Your task to perform on an android device: change the clock style Image 0: 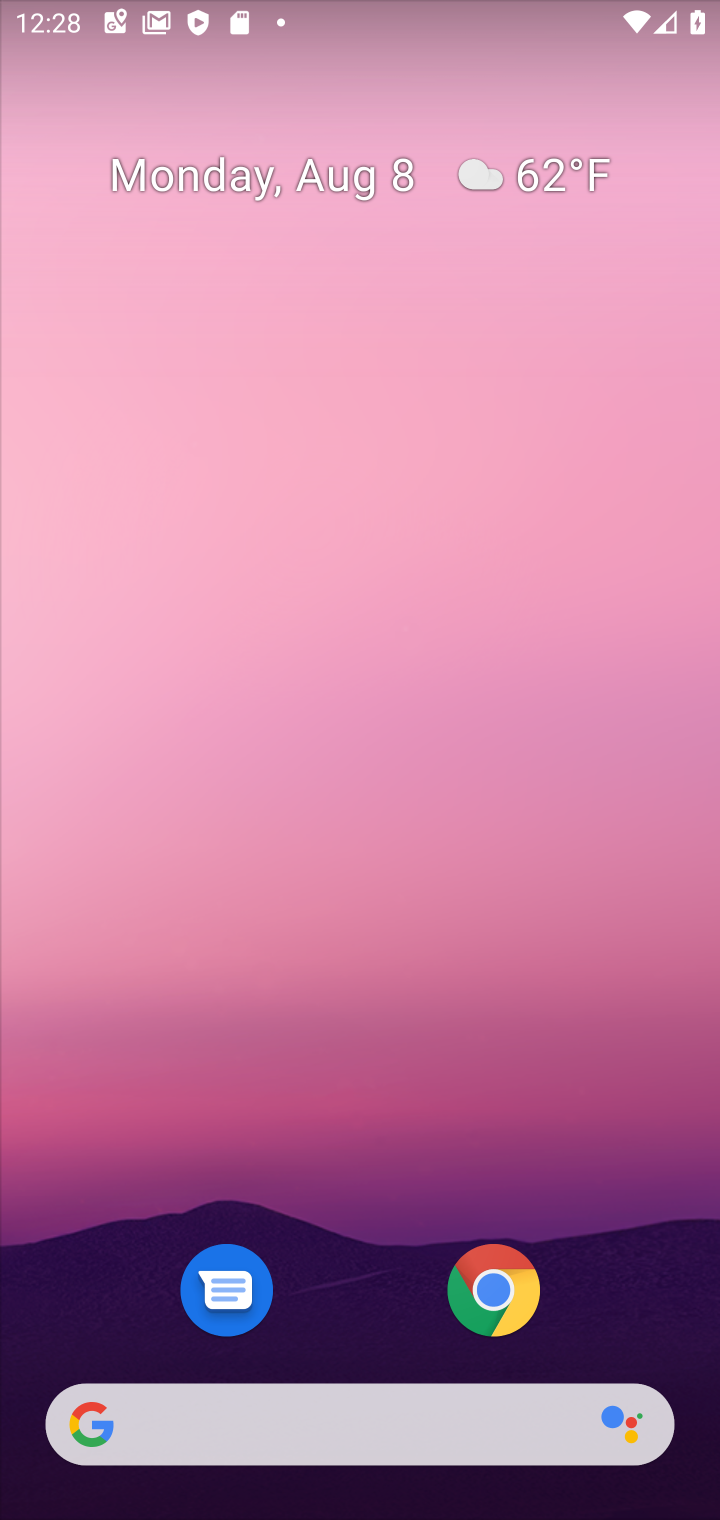
Step 0: click (428, 646)
Your task to perform on an android device: change the clock style Image 1: 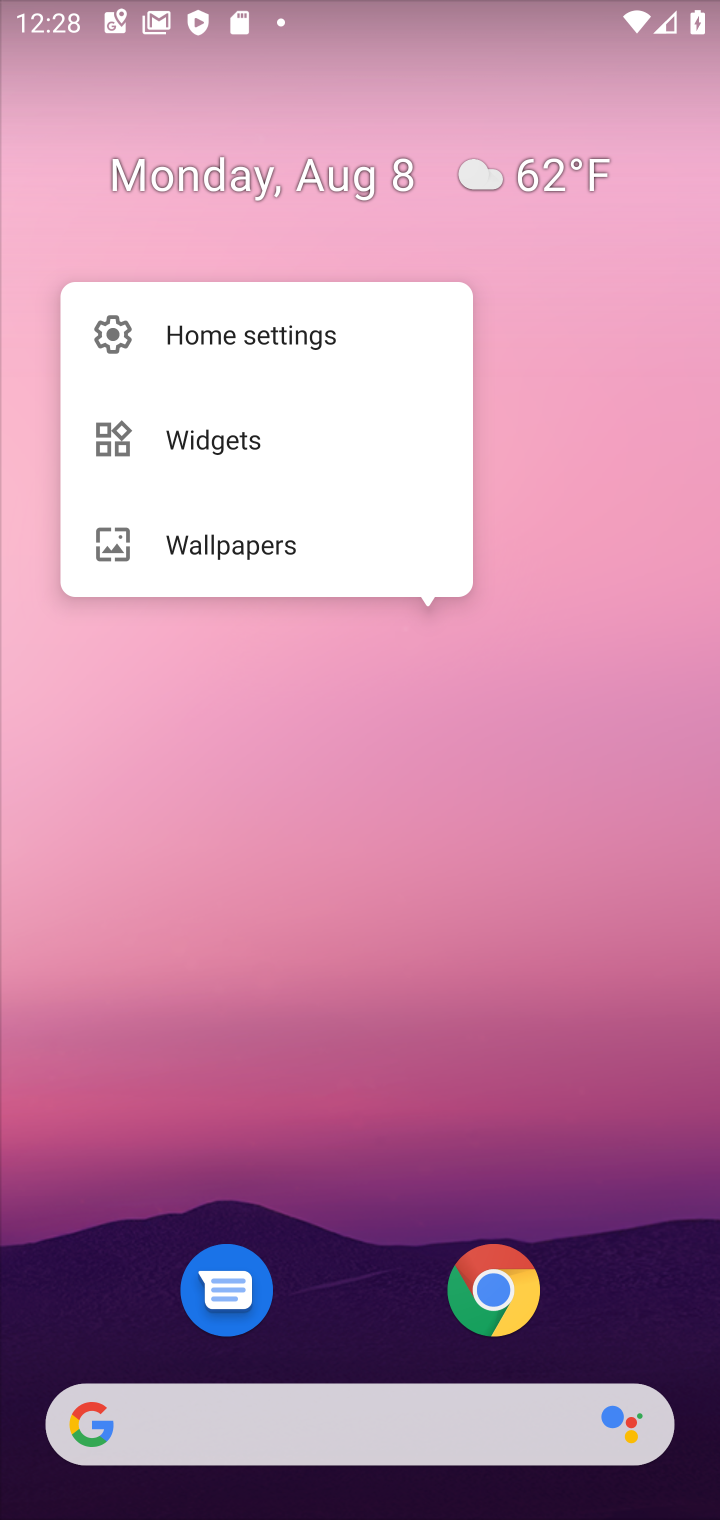
Step 1: click (428, 633)
Your task to perform on an android device: change the clock style Image 2: 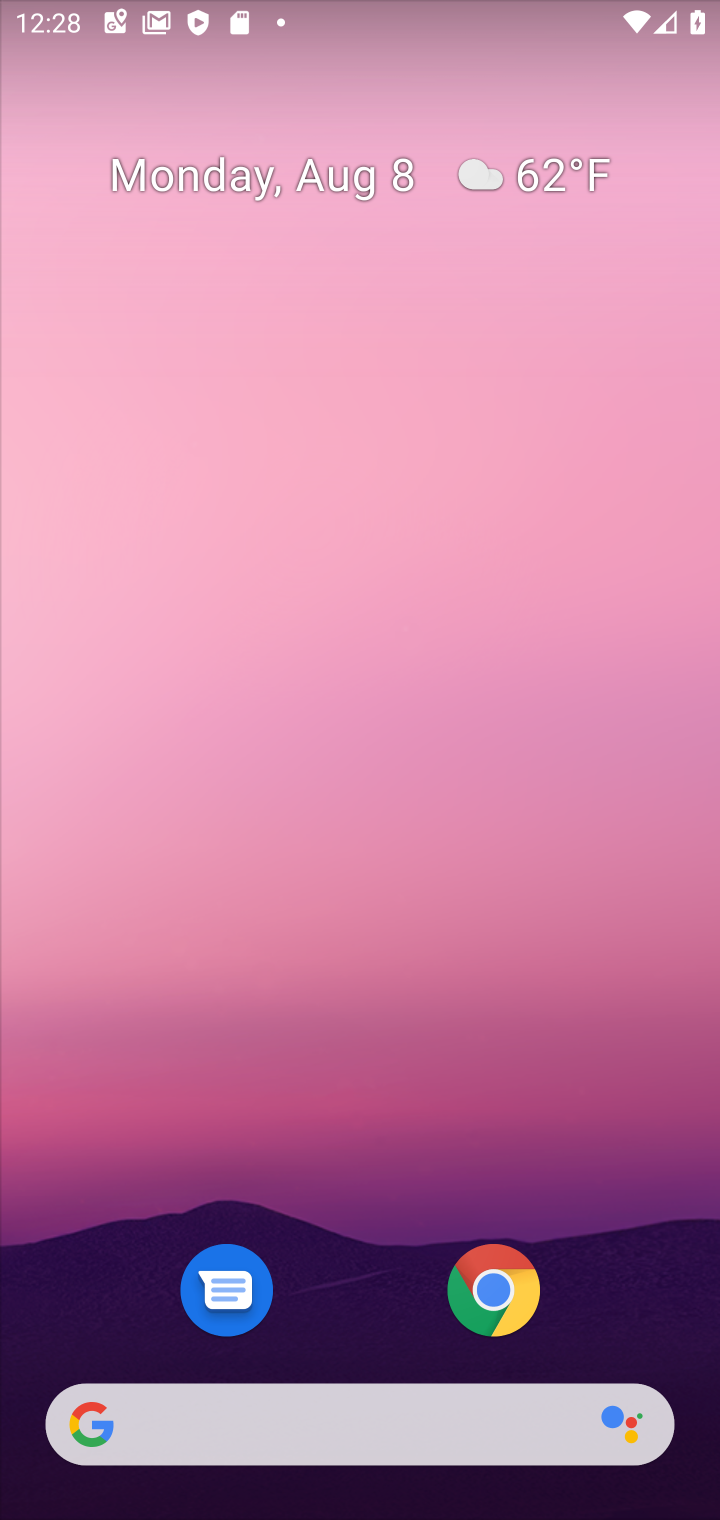
Step 2: drag from (313, 160) to (467, 77)
Your task to perform on an android device: change the clock style Image 3: 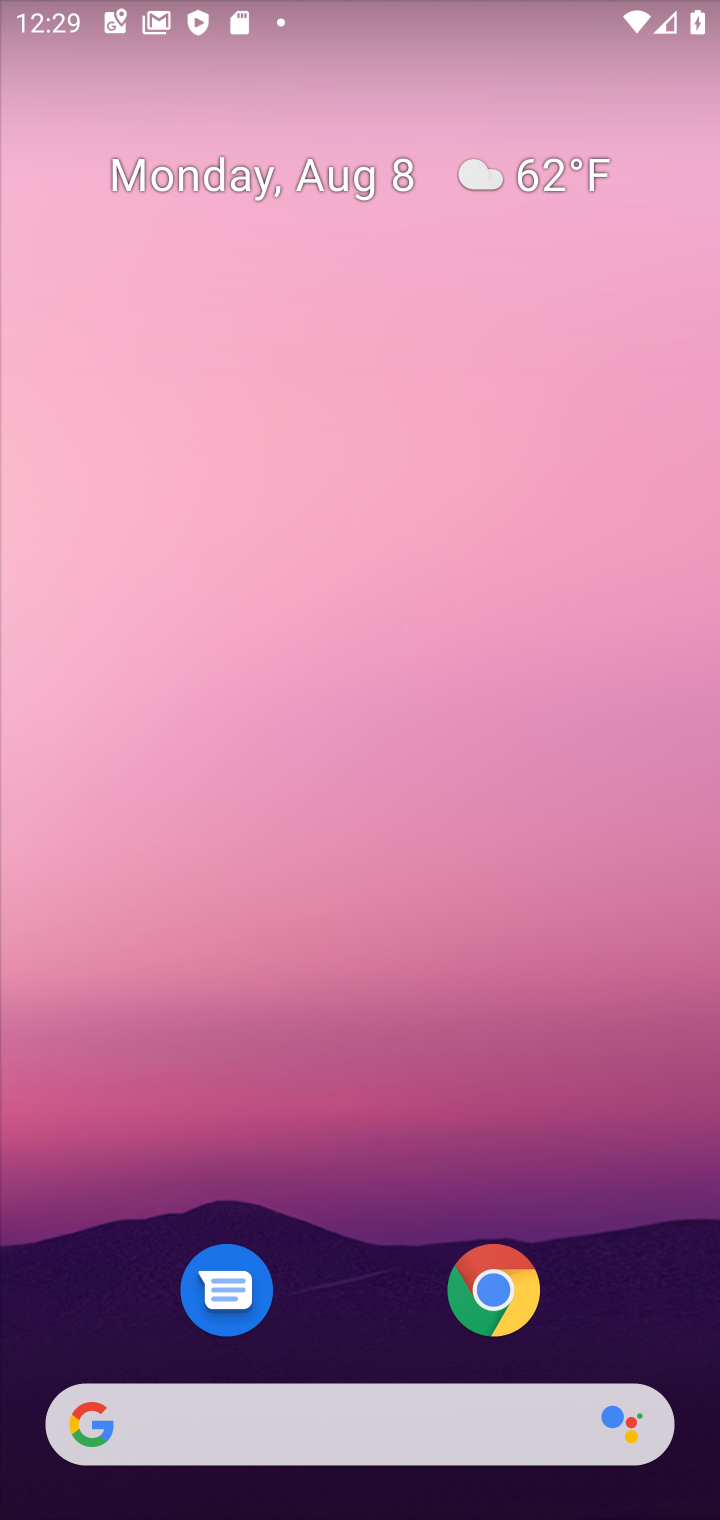
Step 3: drag from (393, 1315) to (393, 306)
Your task to perform on an android device: change the clock style Image 4: 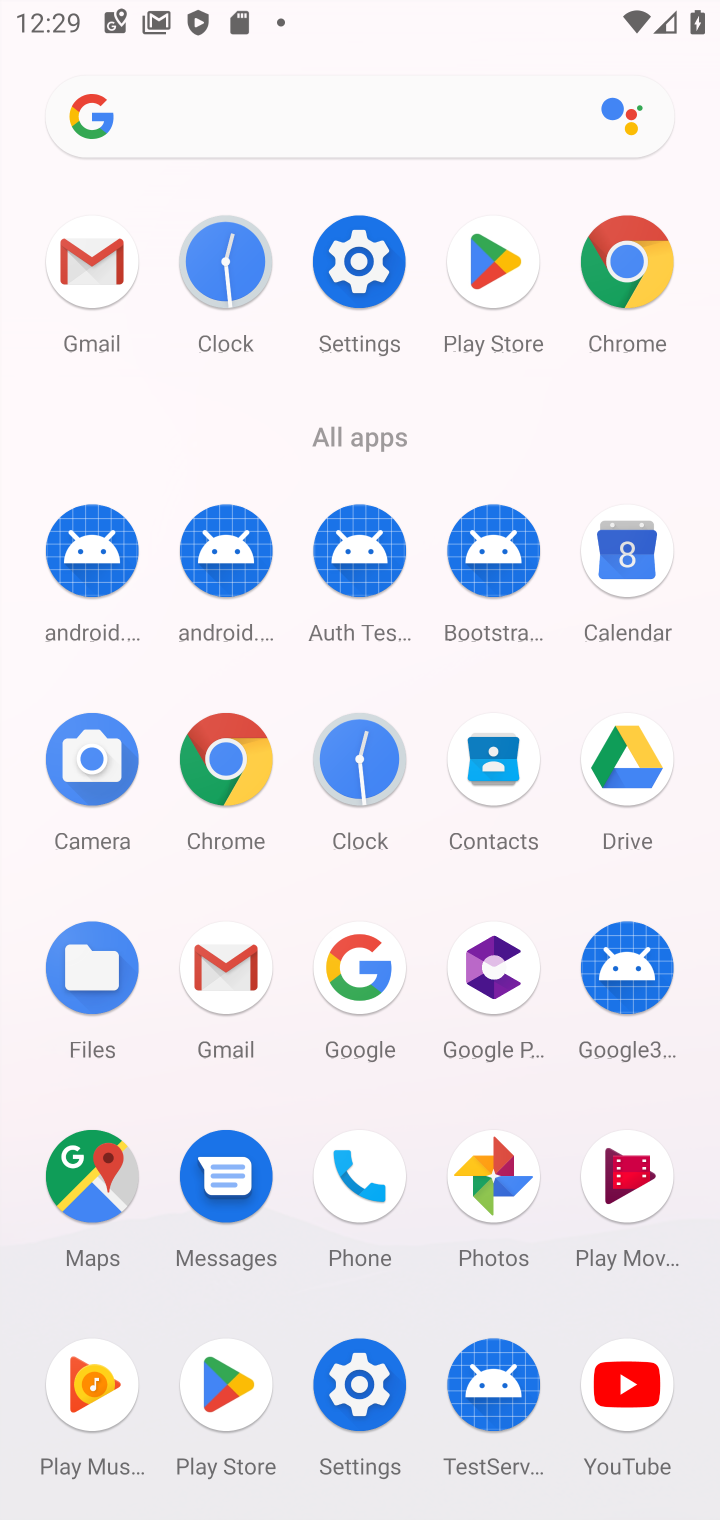
Step 4: click (362, 760)
Your task to perform on an android device: change the clock style Image 5: 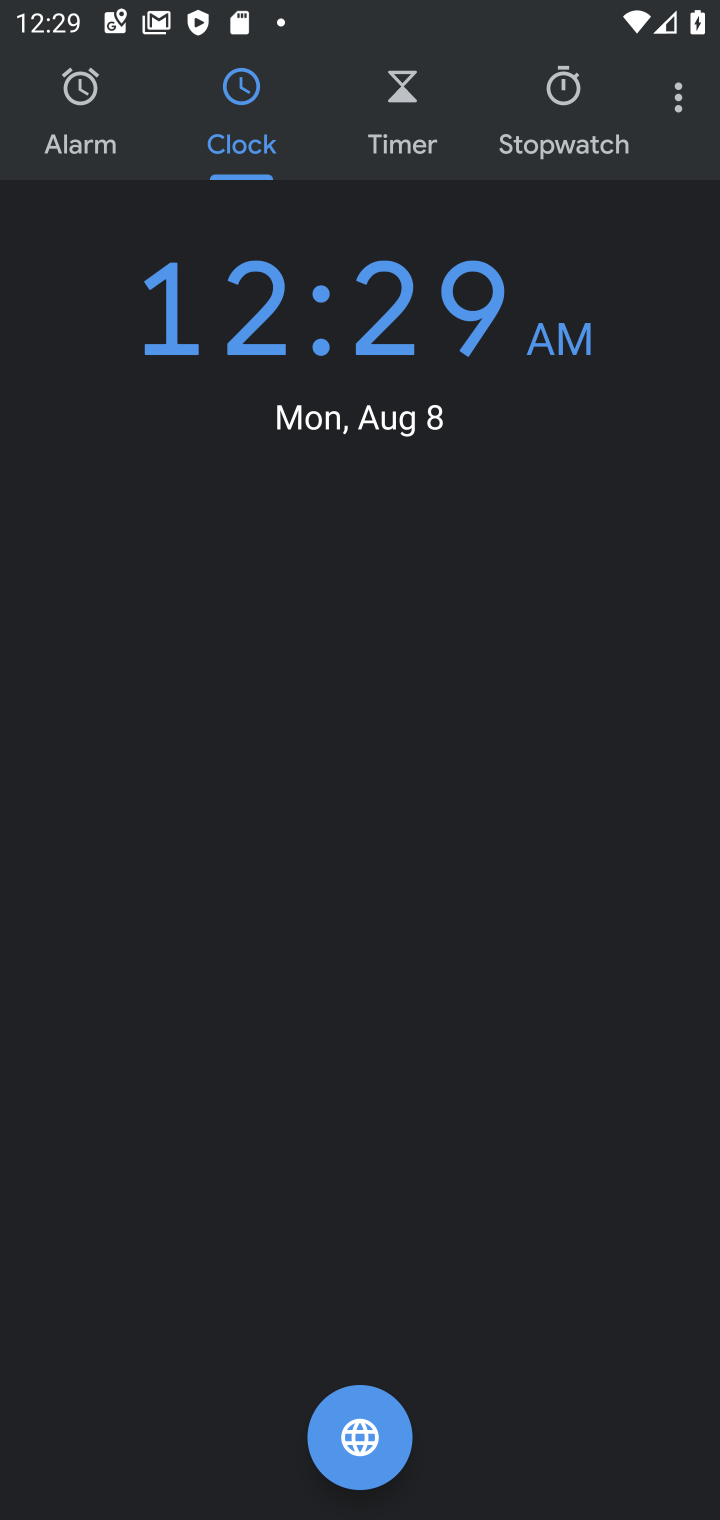
Step 5: click (676, 133)
Your task to perform on an android device: change the clock style Image 6: 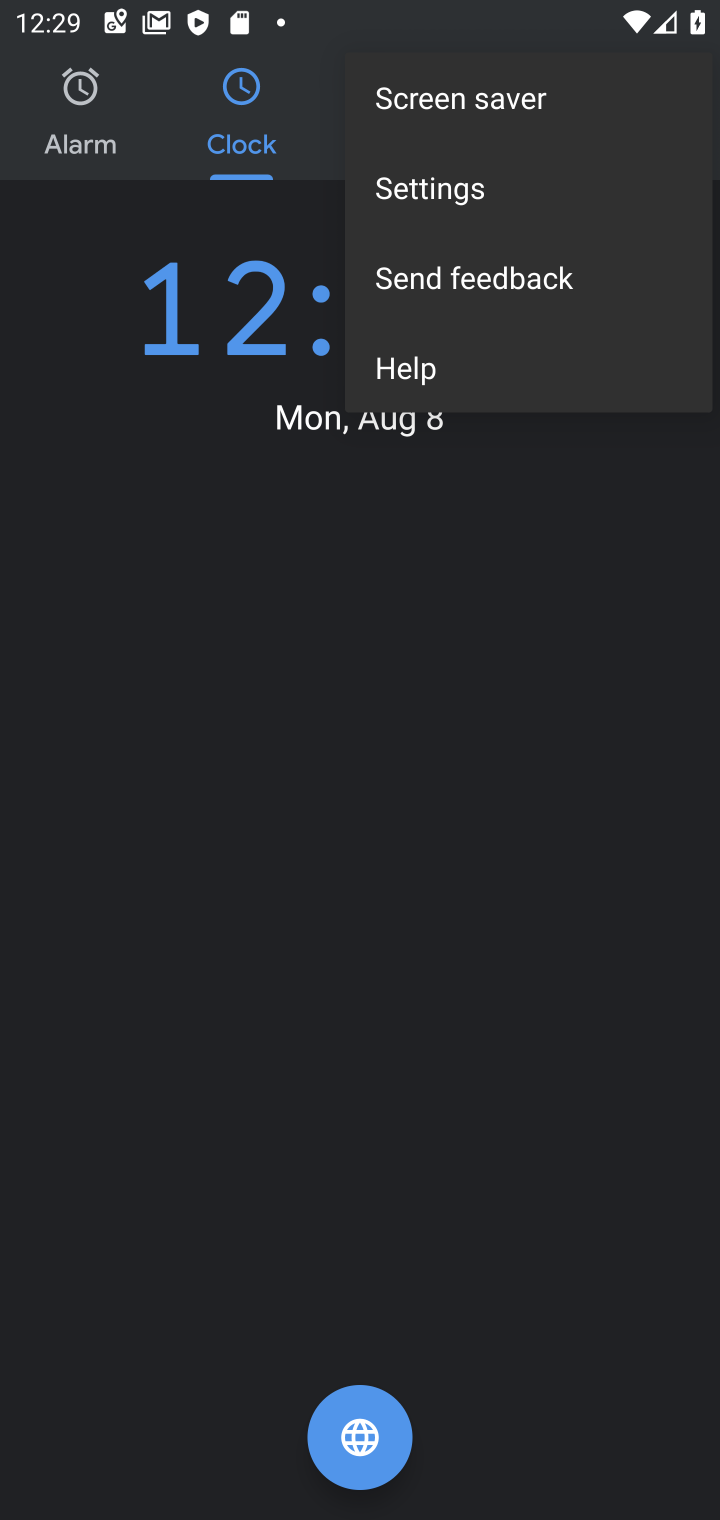
Step 6: click (478, 214)
Your task to perform on an android device: change the clock style Image 7: 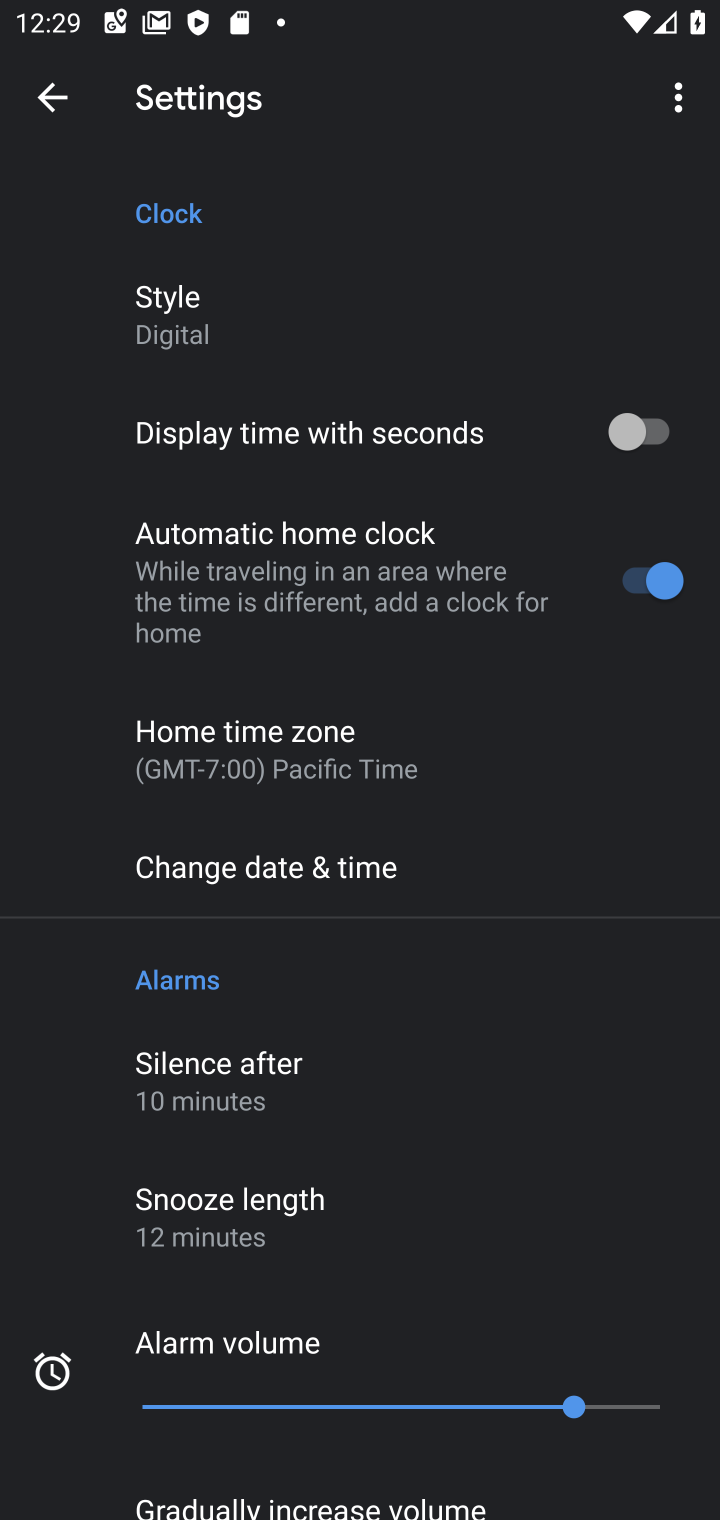
Step 7: click (204, 312)
Your task to perform on an android device: change the clock style Image 8: 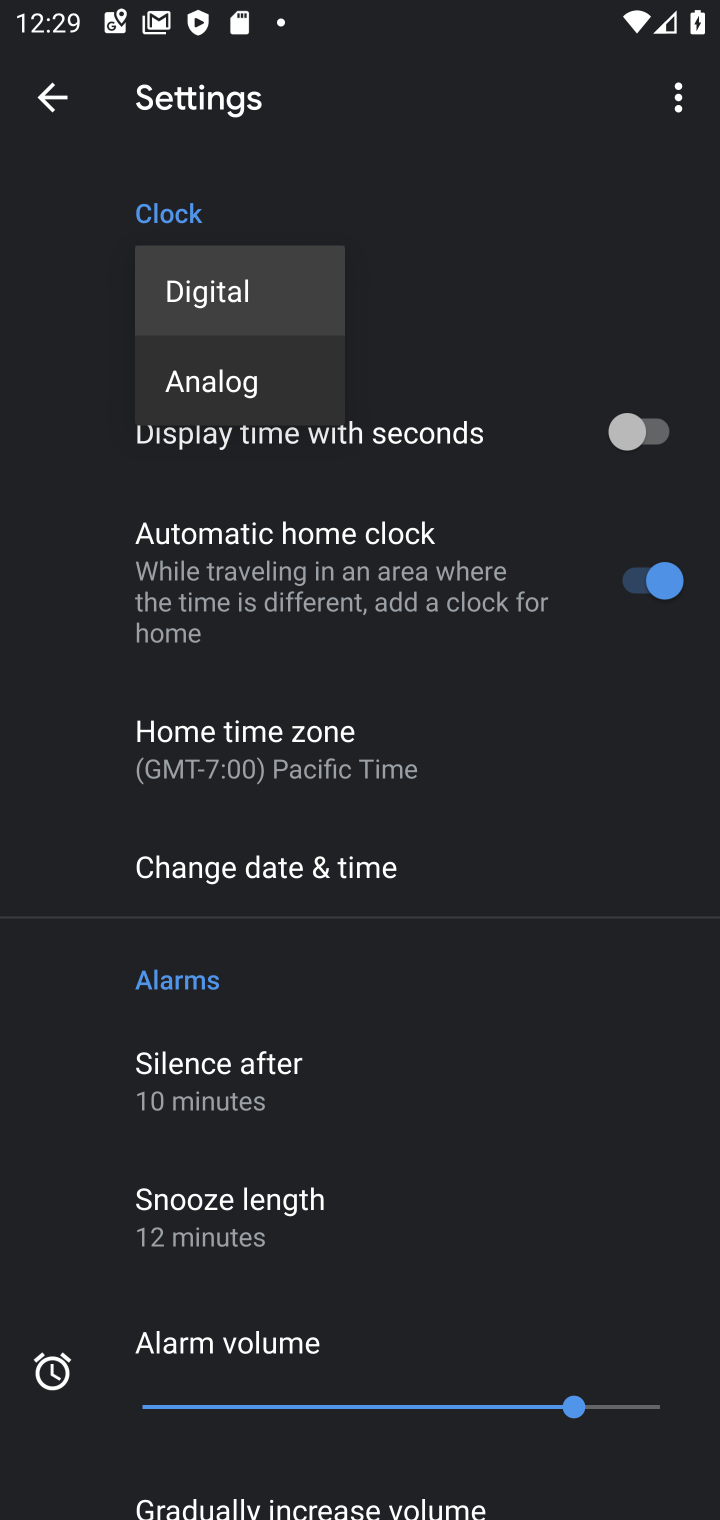
Step 8: click (210, 379)
Your task to perform on an android device: change the clock style Image 9: 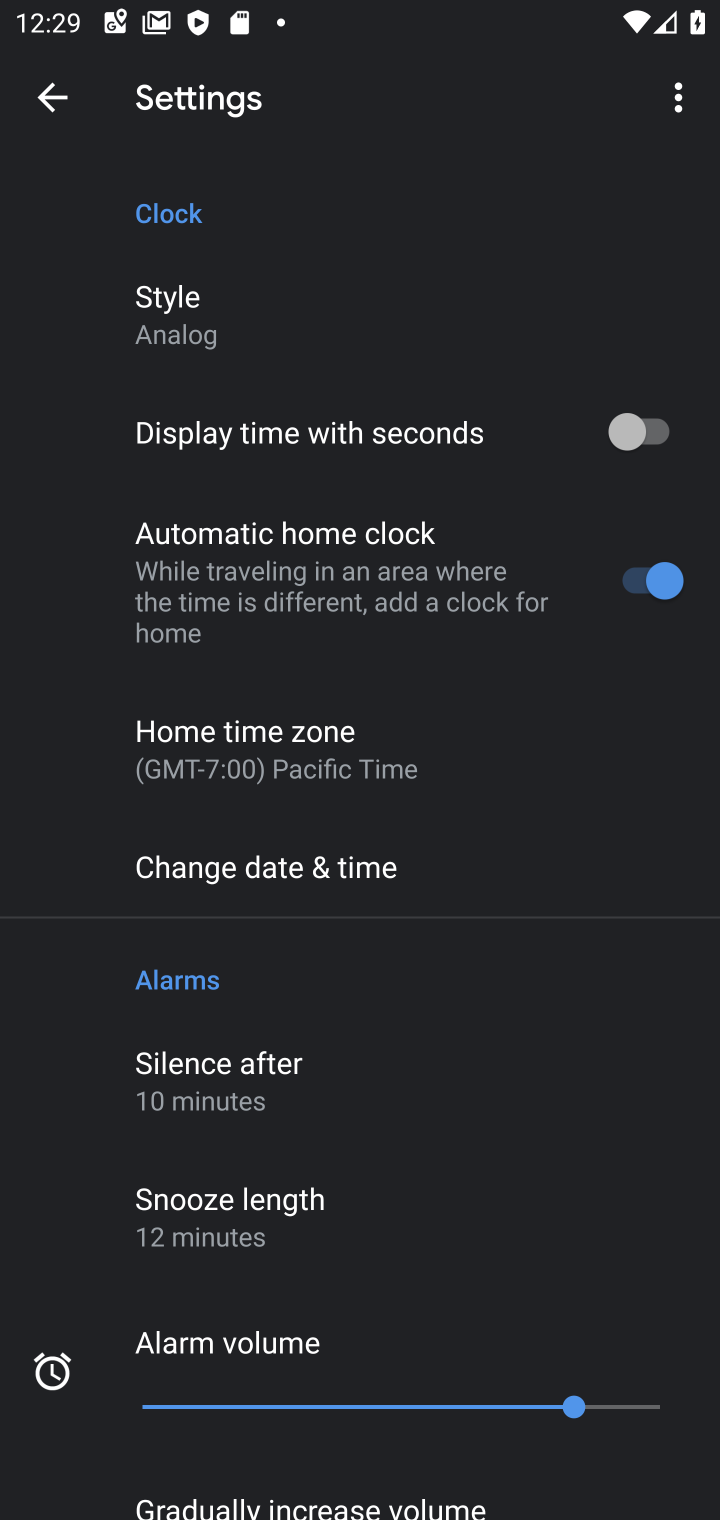
Step 9: task complete